Your task to perform on an android device: What is the recent news? Image 0: 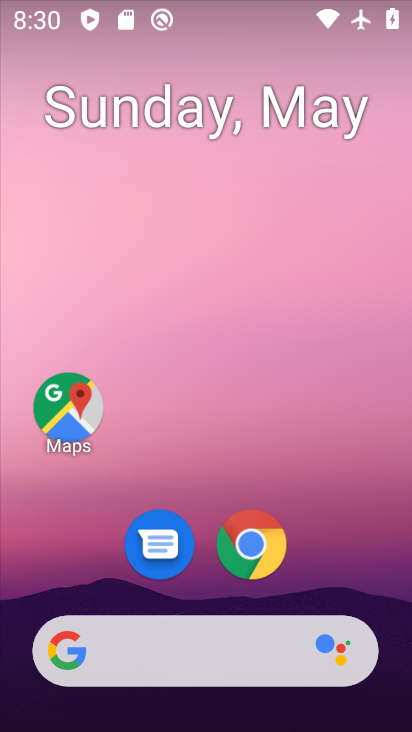
Step 0: drag from (336, 590) to (263, 36)
Your task to perform on an android device: What is the recent news? Image 1: 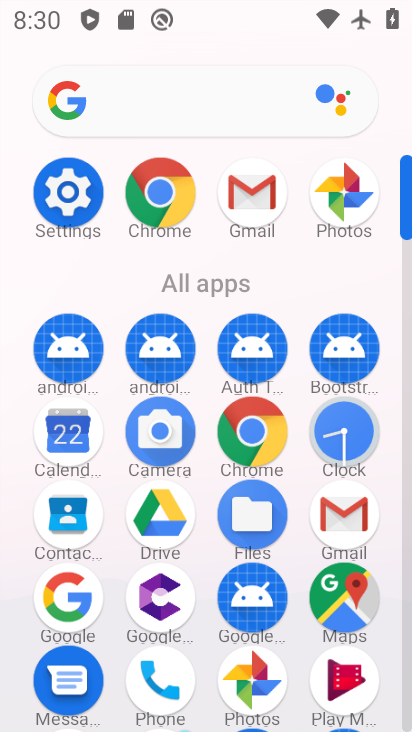
Step 1: drag from (12, 600) to (8, 244)
Your task to perform on an android device: What is the recent news? Image 2: 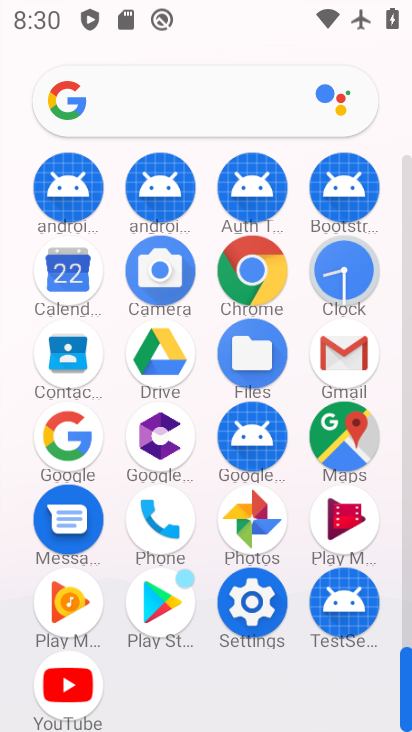
Step 2: click (249, 258)
Your task to perform on an android device: What is the recent news? Image 3: 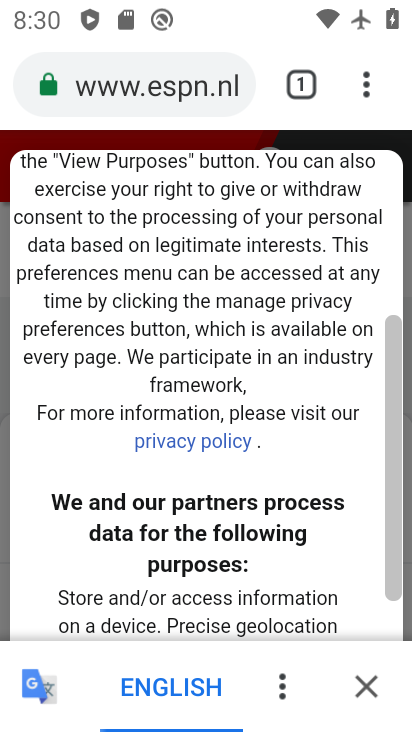
Step 3: click (170, 73)
Your task to perform on an android device: What is the recent news? Image 4: 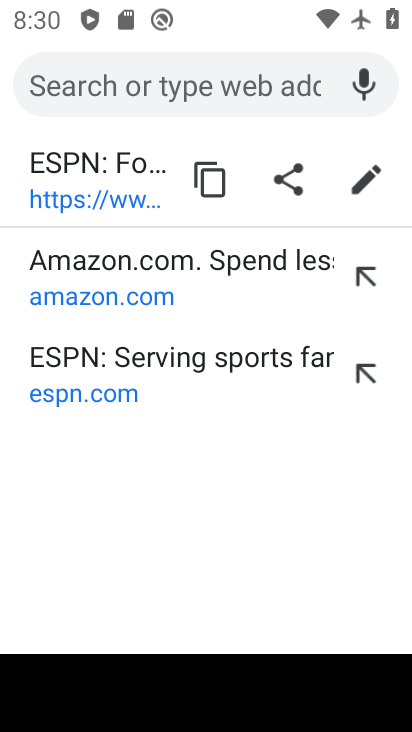
Step 4: type "What is the recent news?"
Your task to perform on an android device: What is the recent news? Image 5: 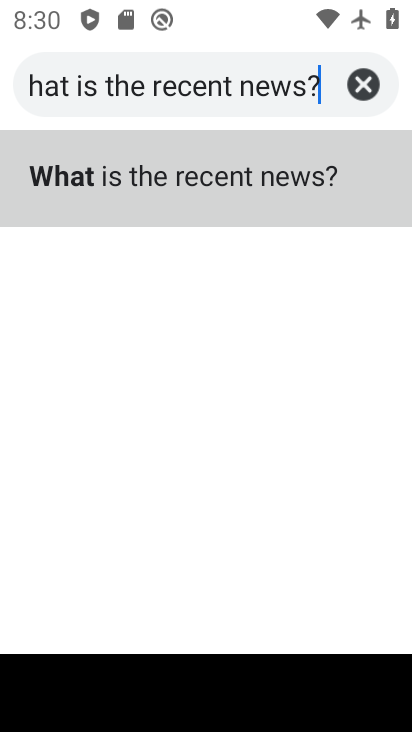
Step 5: type ""
Your task to perform on an android device: What is the recent news? Image 6: 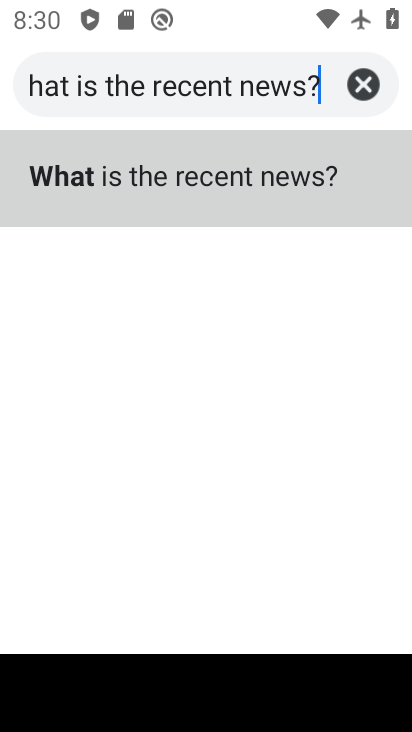
Step 6: click (166, 157)
Your task to perform on an android device: What is the recent news? Image 7: 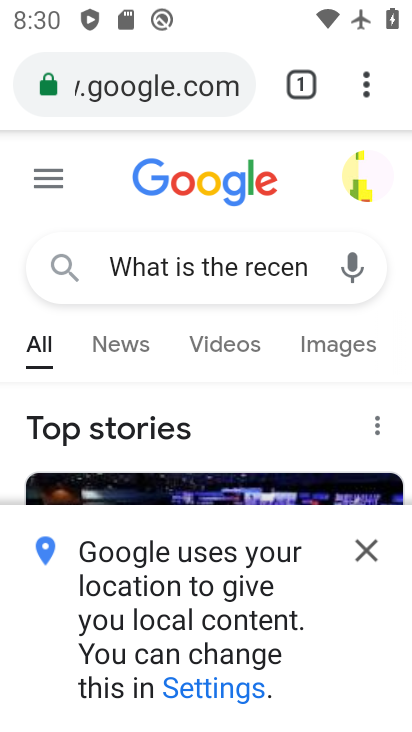
Step 7: click (368, 558)
Your task to perform on an android device: What is the recent news? Image 8: 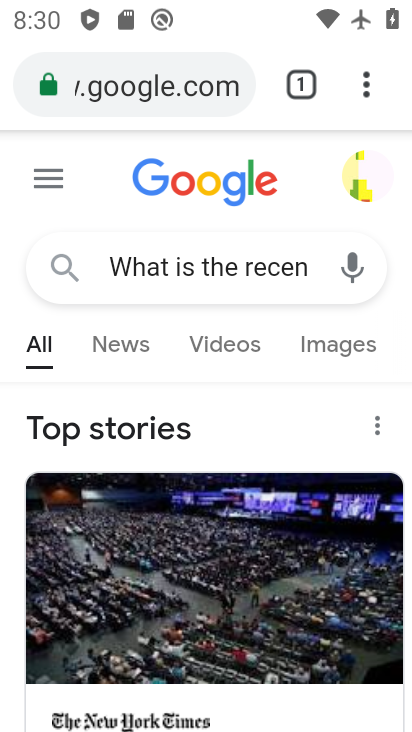
Step 8: task complete